Your task to perform on an android device: allow notifications from all sites in the chrome app Image 0: 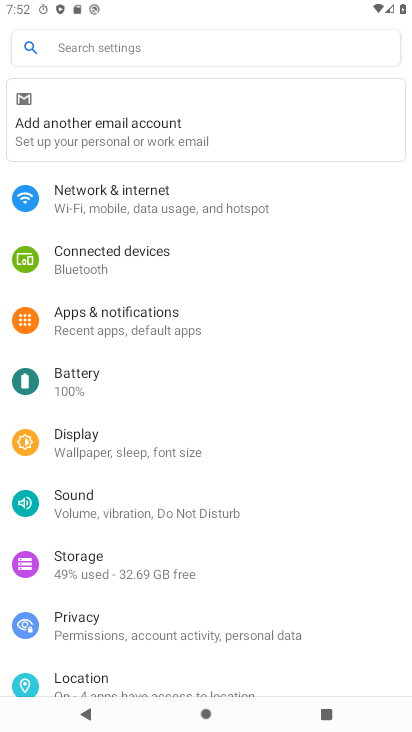
Step 0: press home button
Your task to perform on an android device: allow notifications from all sites in the chrome app Image 1: 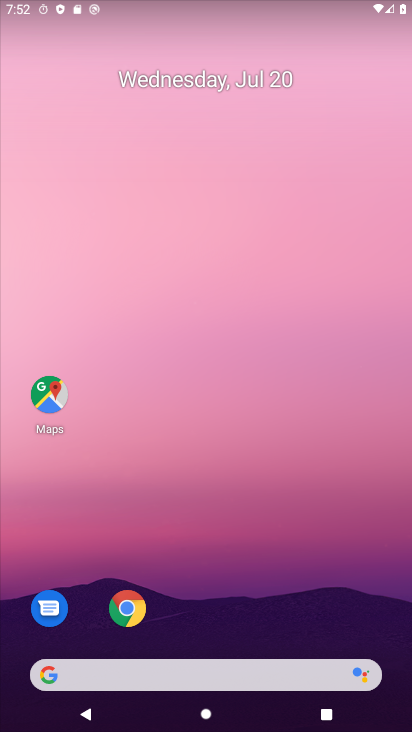
Step 1: click (126, 600)
Your task to perform on an android device: allow notifications from all sites in the chrome app Image 2: 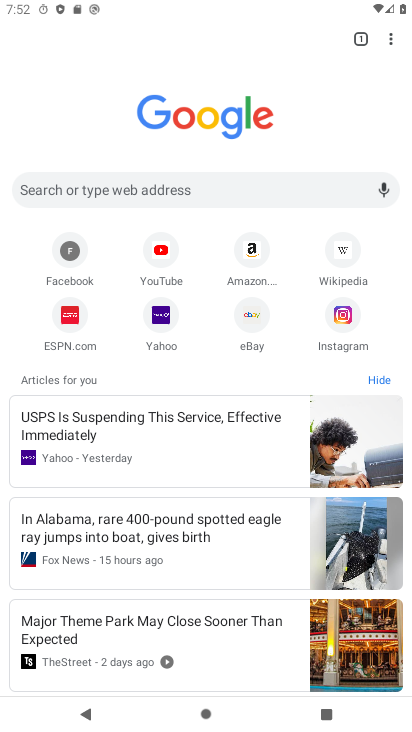
Step 2: click (389, 36)
Your task to perform on an android device: allow notifications from all sites in the chrome app Image 3: 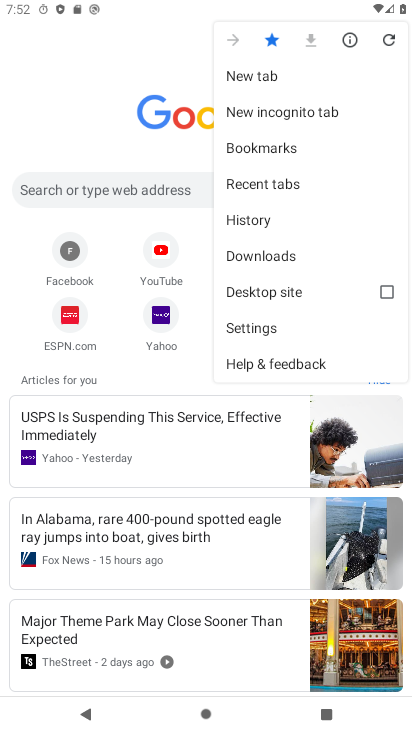
Step 3: click (244, 335)
Your task to perform on an android device: allow notifications from all sites in the chrome app Image 4: 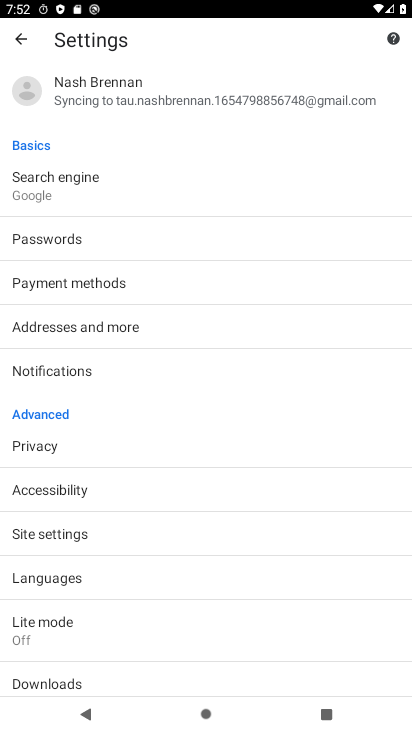
Step 4: click (89, 372)
Your task to perform on an android device: allow notifications from all sites in the chrome app Image 5: 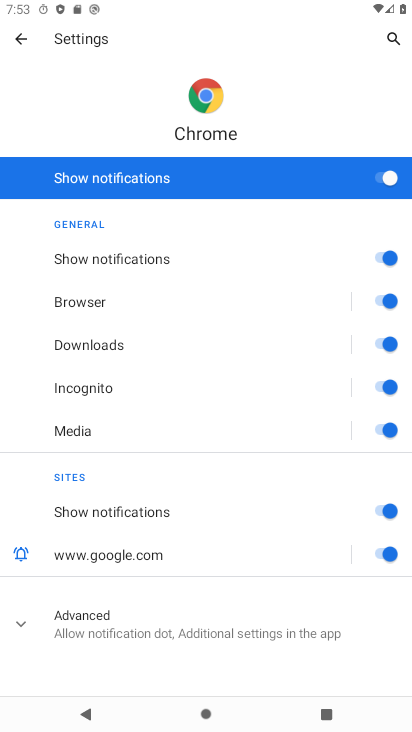
Step 5: task complete